Your task to perform on an android device: Open battery settings Image 0: 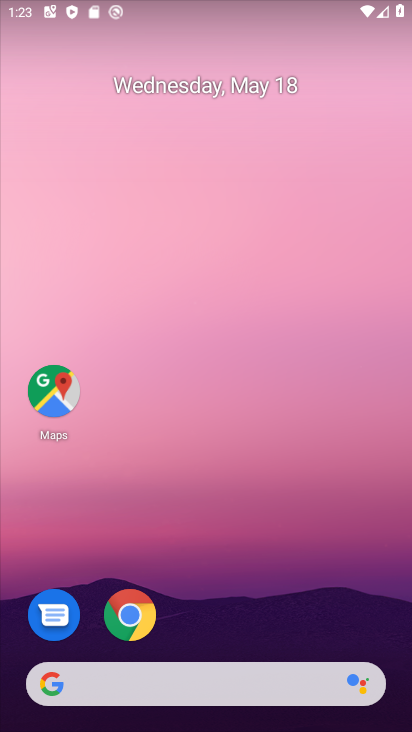
Step 0: drag from (370, 608) to (279, 61)
Your task to perform on an android device: Open battery settings Image 1: 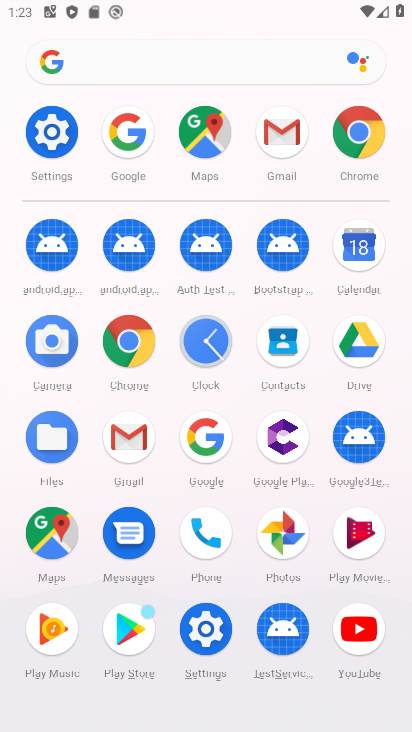
Step 1: click (195, 629)
Your task to perform on an android device: Open battery settings Image 2: 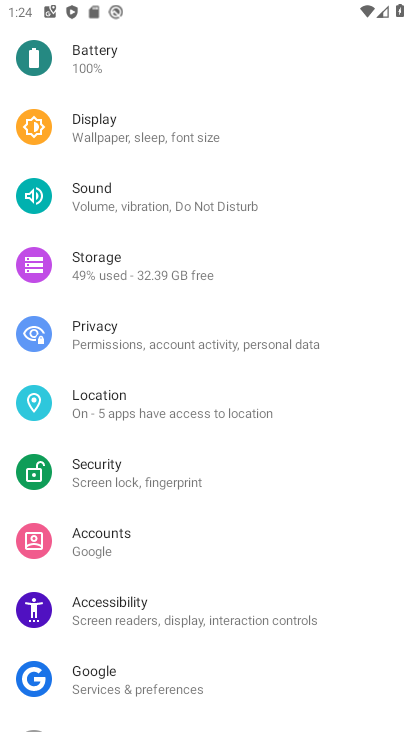
Step 2: click (122, 77)
Your task to perform on an android device: Open battery settings Image 3: 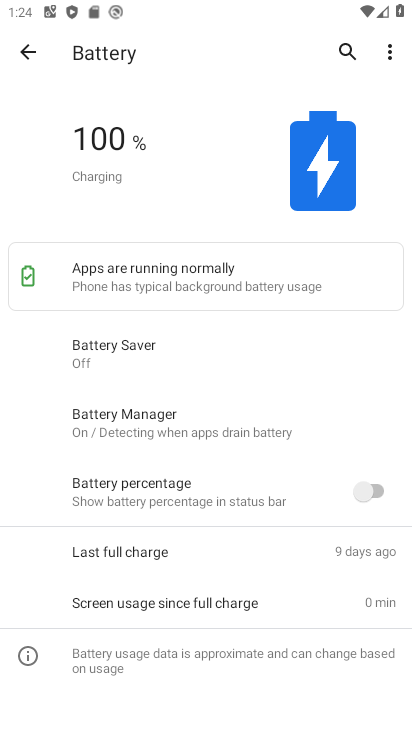
Step 3: task complete